Your task to perform on an android device: search for starred emails in the gmail app Image 0: 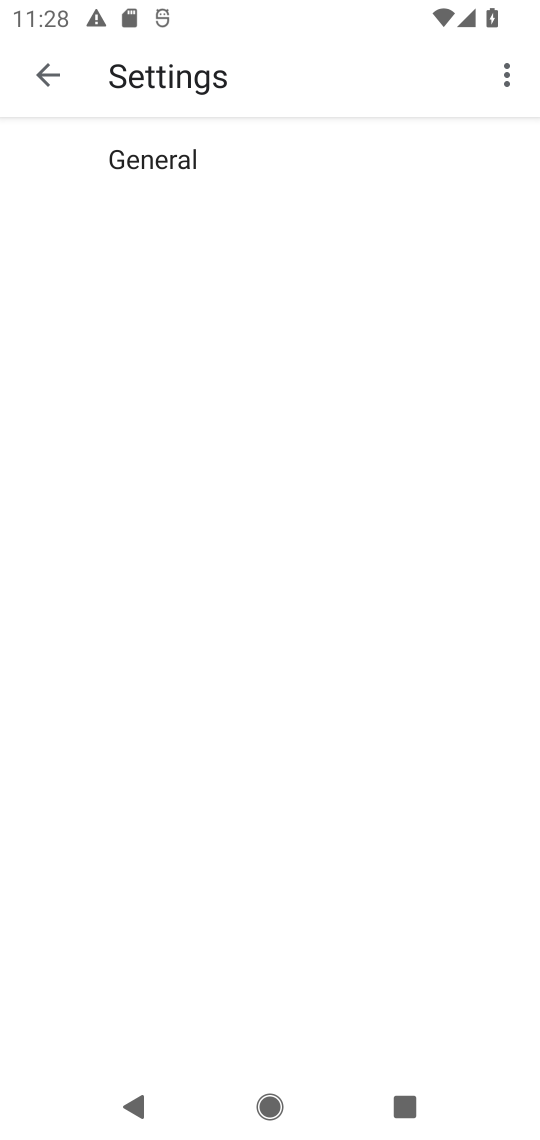
Step 0: press home button
Your task to perform on an android device: search for starred emails in the gmail app Image 1: 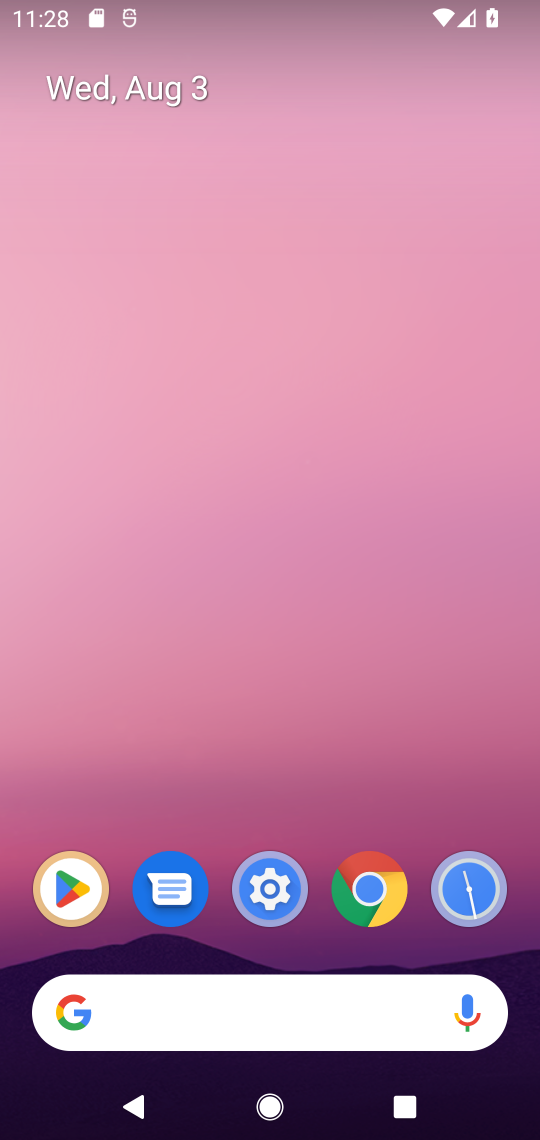
Step 1: drag from (431, 950) to (397, 183)
Your task to perform on an android device: search for starred emails in the gmail app Image 2: 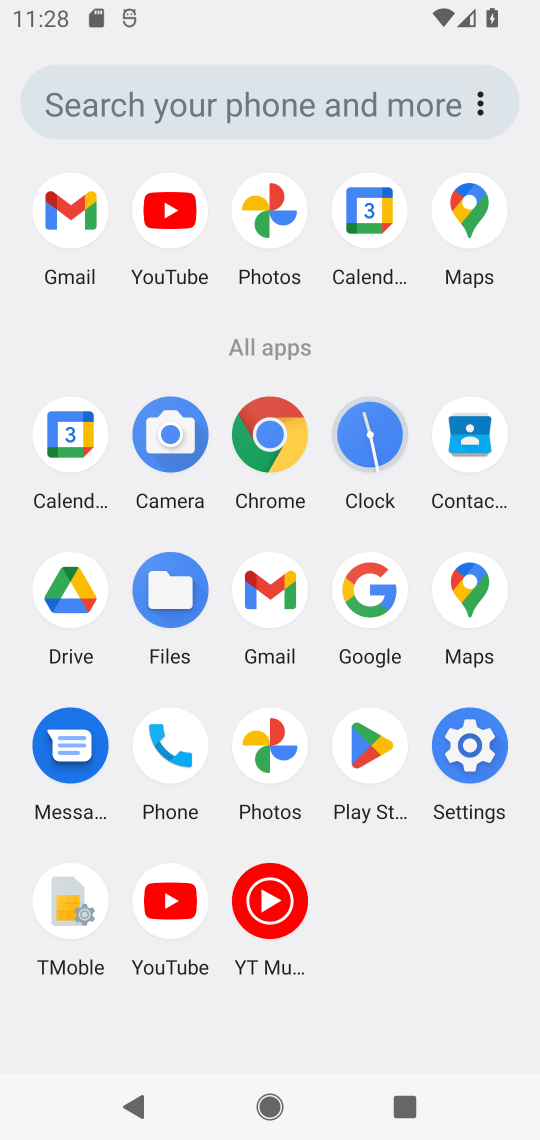
Step 2: click (268, 588)
Your task to perform on an android device: search for starred emails in the gmail app Image 3: 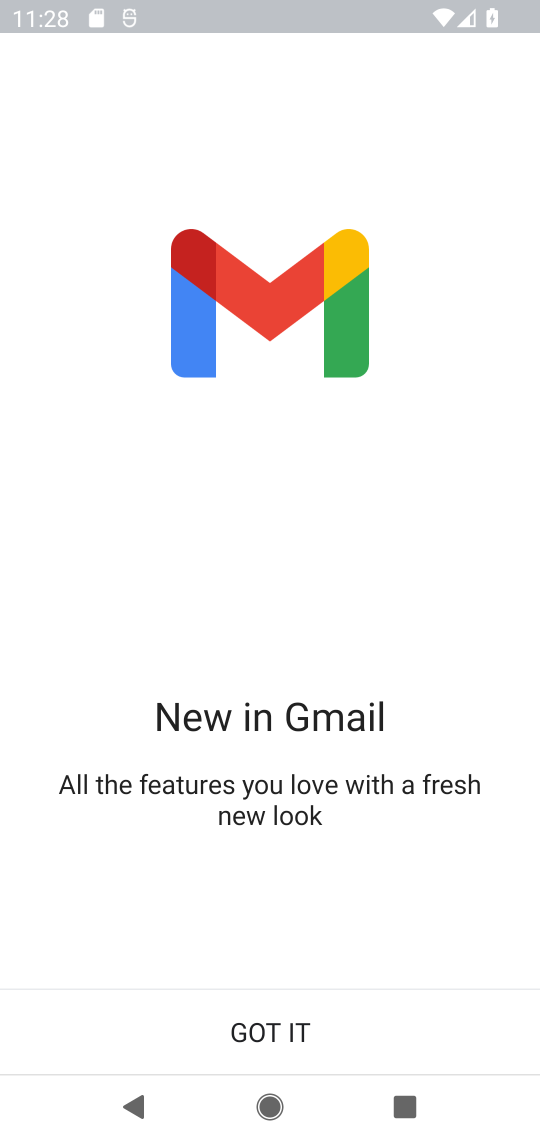
Step 3: click (273, 1032)
Your task to perform on an android device: search for starred emails in the gmail app Image 4: 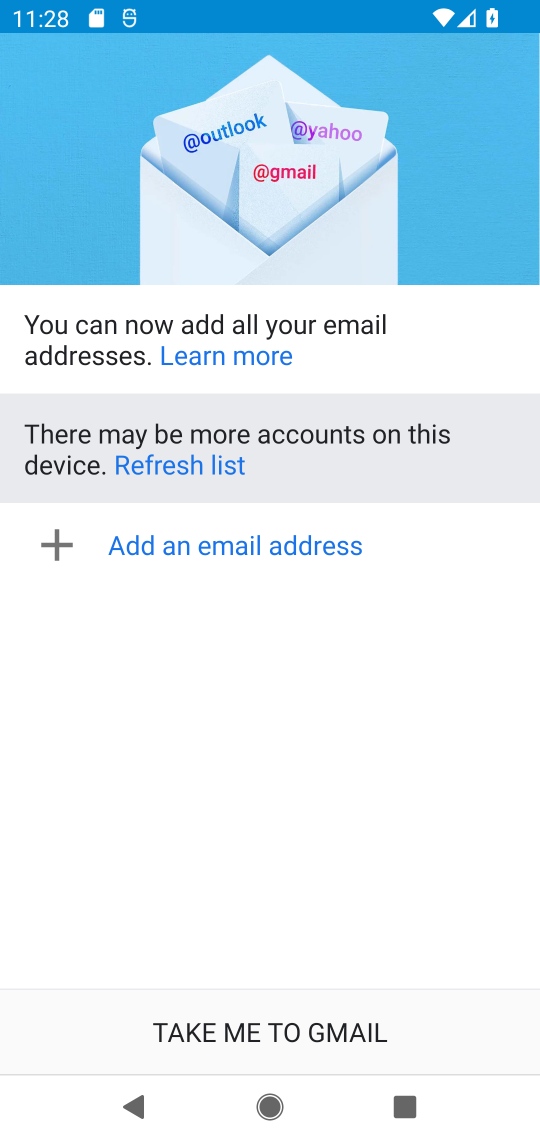
Step 4: click (253, 1027)
Your task to perform on an android device: search for starred emails in the gmail app Image 5: 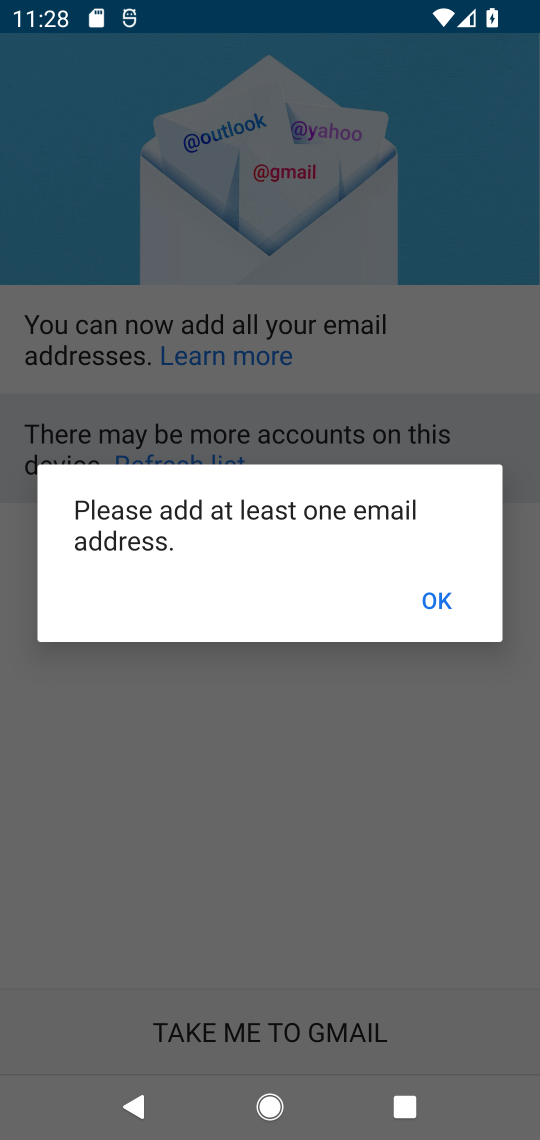
Step 5: click (426, 601)
Your task to perform on an android device: search for starred emails in the gmail app Image 6: 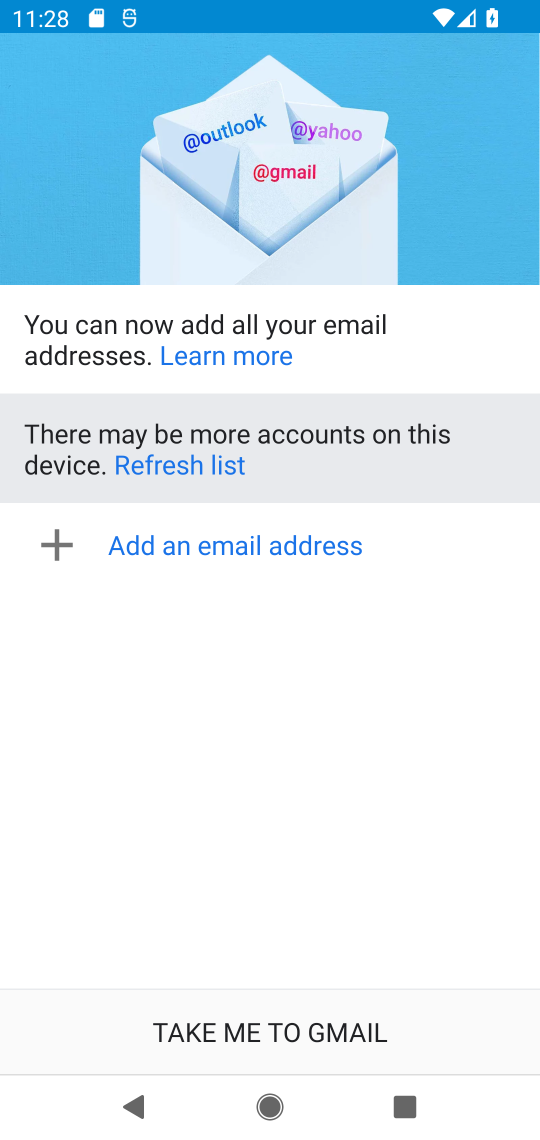
Step 6: click (250, 1016)
Your task to perform on an android device: search for starred emails in the gmail app Image 7: 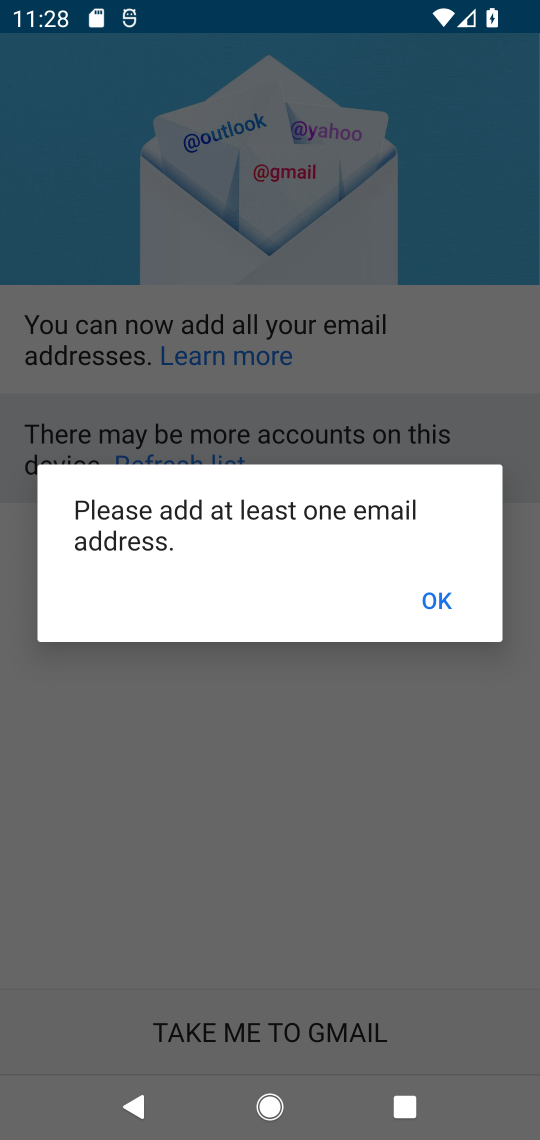
Step 7: task complete